Your task to perform on an android device: toggle priority inbox in the gmail app Image 0: 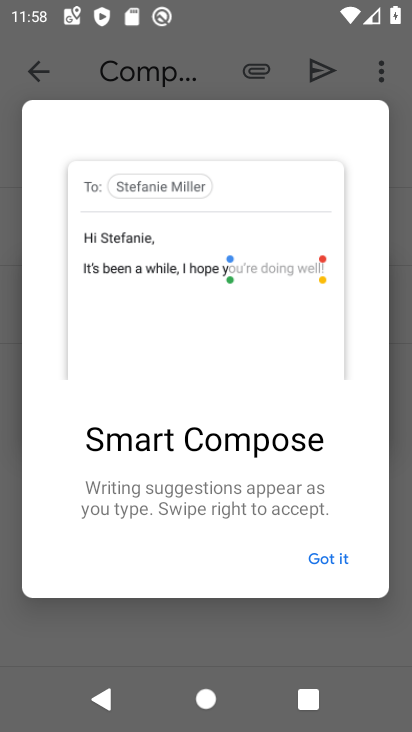
Step 0: press home button
Your task to perform on an android device: toggle priority inbox in the gmail app Image 1: 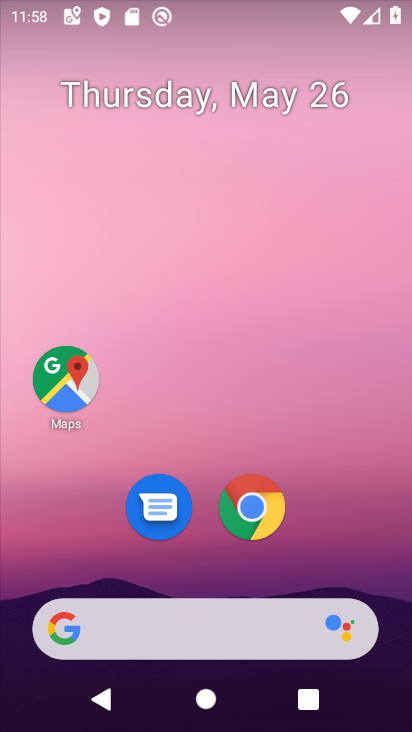
Step 1: drag from (316, 555) to (303, 211)
Your task to perform on an android device: toggle priority inbox in the gmail app Image 2: 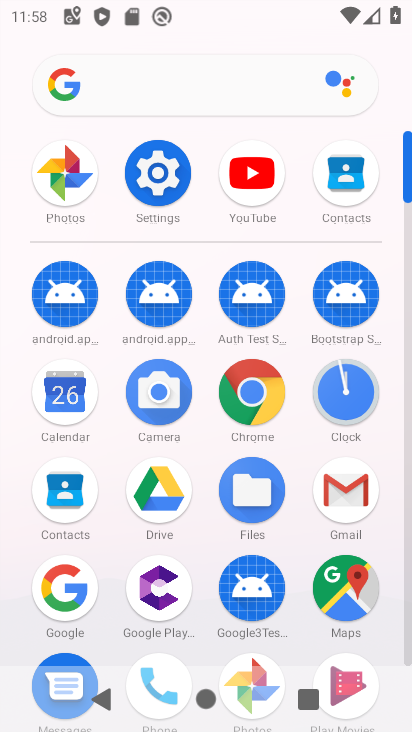
Step 2: click (329, 488)
Your task to perform on an android device: toggle priority inbox in the gmail app Image 3: 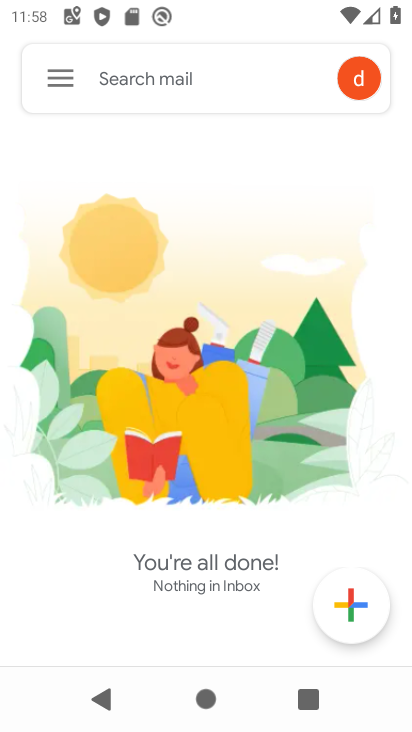
Step 3: click (58, 73)
Your task to perform on an android device: toggle priority inbox in the gmail app Image 4: 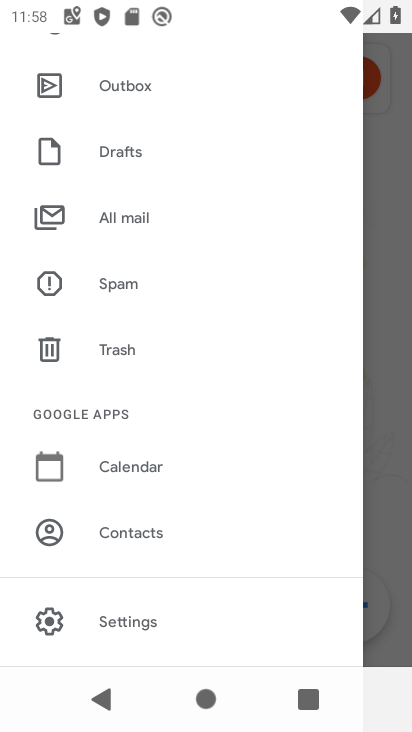
Step 4: click (154, 622)
Your task to perform on an android device: toggle priority inbox in the gmail app Image 5: 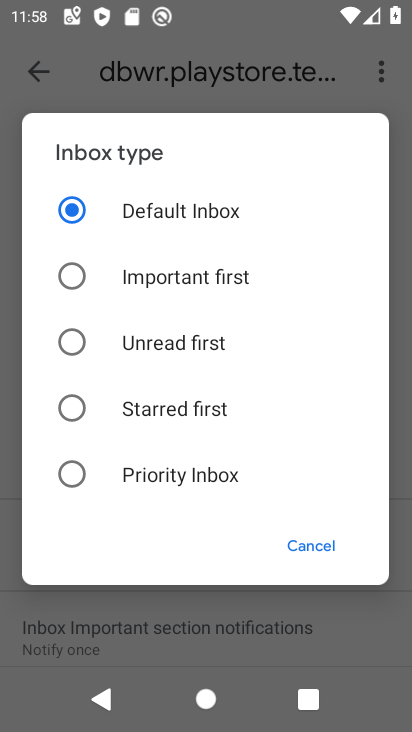
Step 5: click (292, 545)
Your task to perform on an android device: toggle priority inbox in the gmail app Image 6: 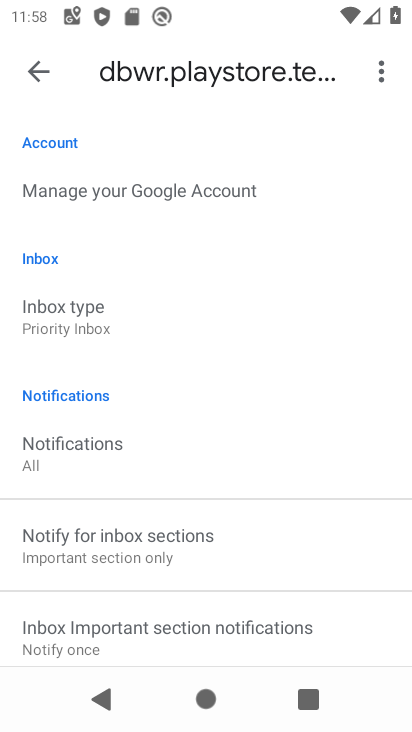
Step 6: drag from (292, 545) to (278, 419)
Your task to perform on an android device: toggle priority inbox in the gmail app Image 7: 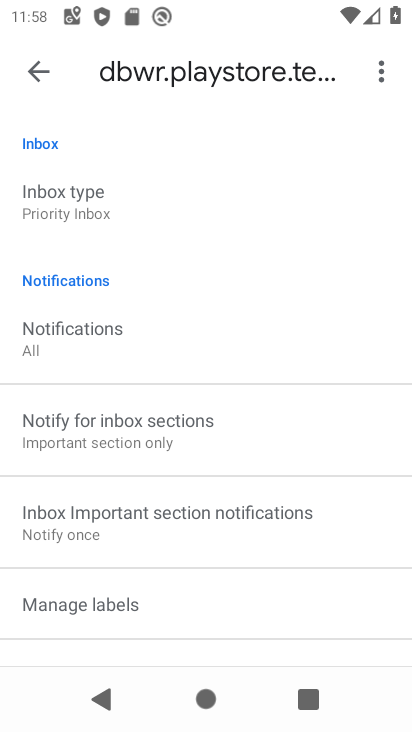
Step 7: click (237, 585)
Your task to perform on an android device: toggle priority inbox in the gmail app Image 8: 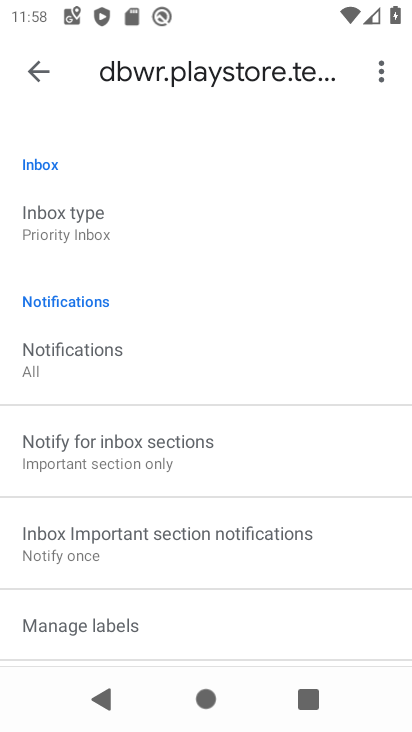
Step 8: click (59, 222)
Your task to perform on an android device: toggle priority inbox in the gmail app Image 9: 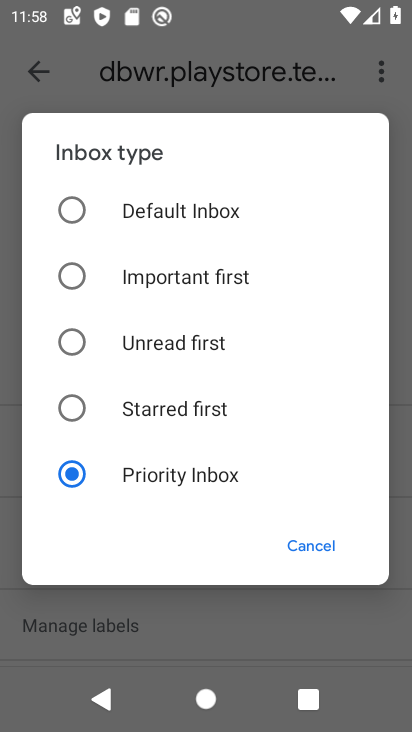
Step 9: click (174, 207)
Your task to perform on an android device: toggle priority inbox in the gmail app Image 10: 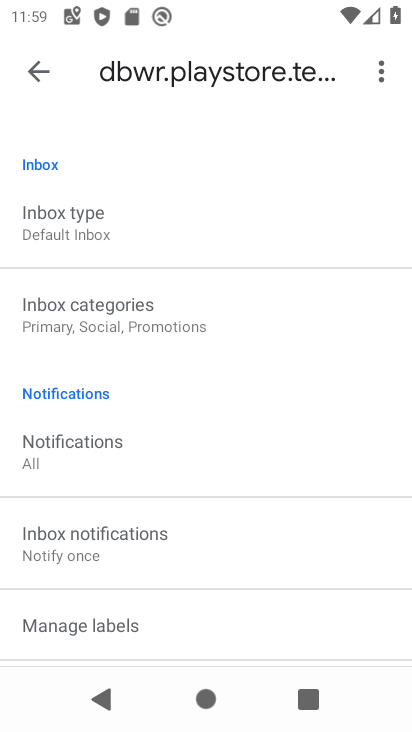
Step 10: task complete